Your task to perform on an android device: Search for flights from Barcelona to Mexico city Image 0: 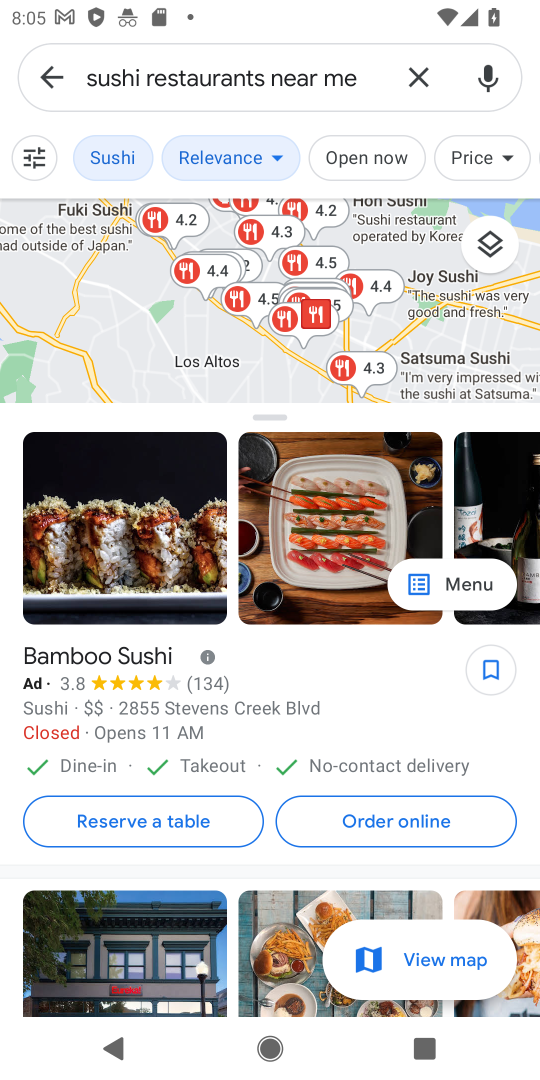
Step 0: click (38, 62)
Your task to perform on an android device: Search for flights from Barcelona to Mexico city Image 1: 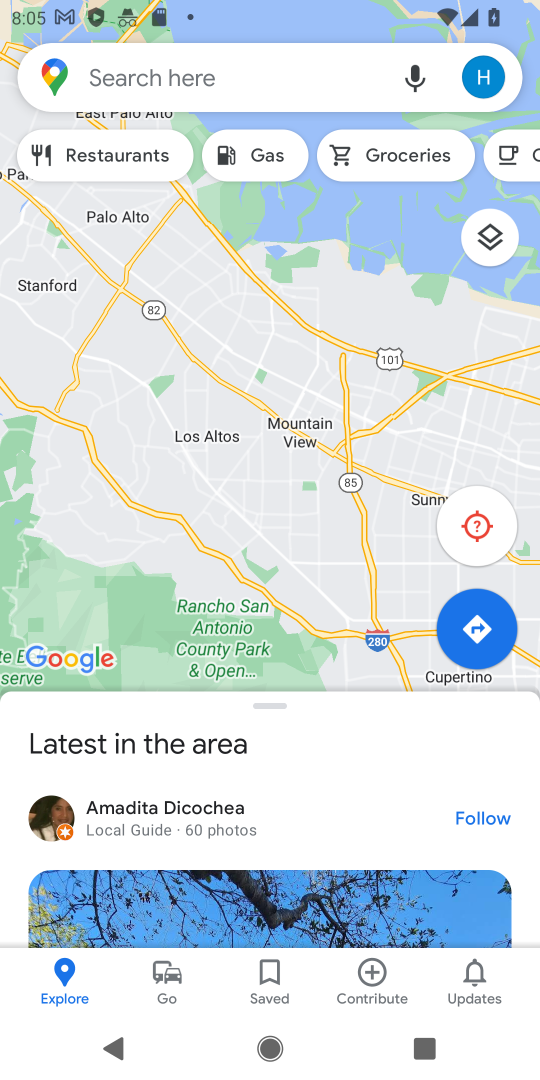
Step 1: click (212, 74)
Your task to perform on an android device: Search for flights from Barcelona to Mexico city Image 2: 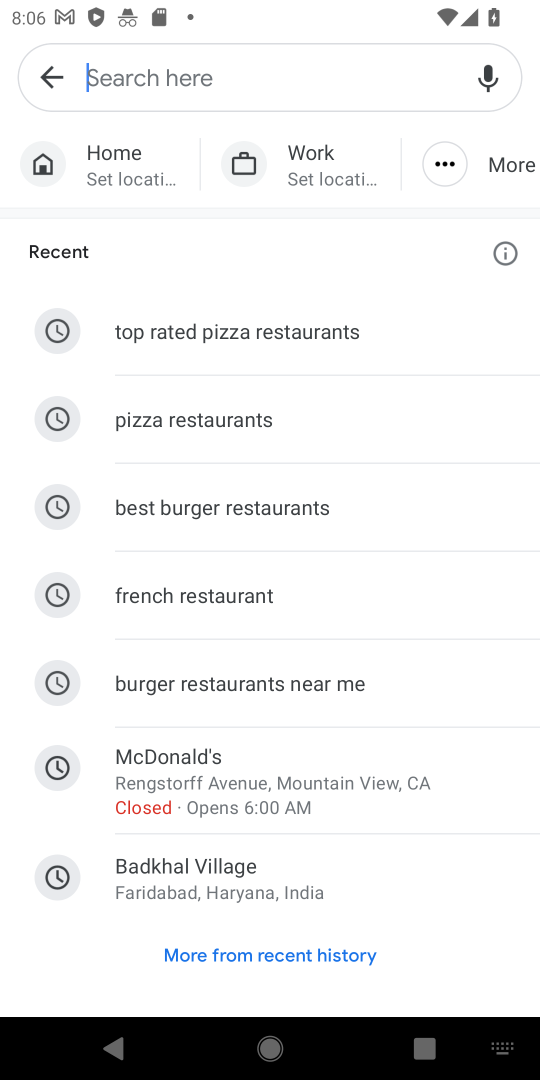
Step 2: type "Search for flights from Barcelona to Mexico city"
Your task to perform on an android device: Search for flights from Barcelona to Mexico city Image 3: 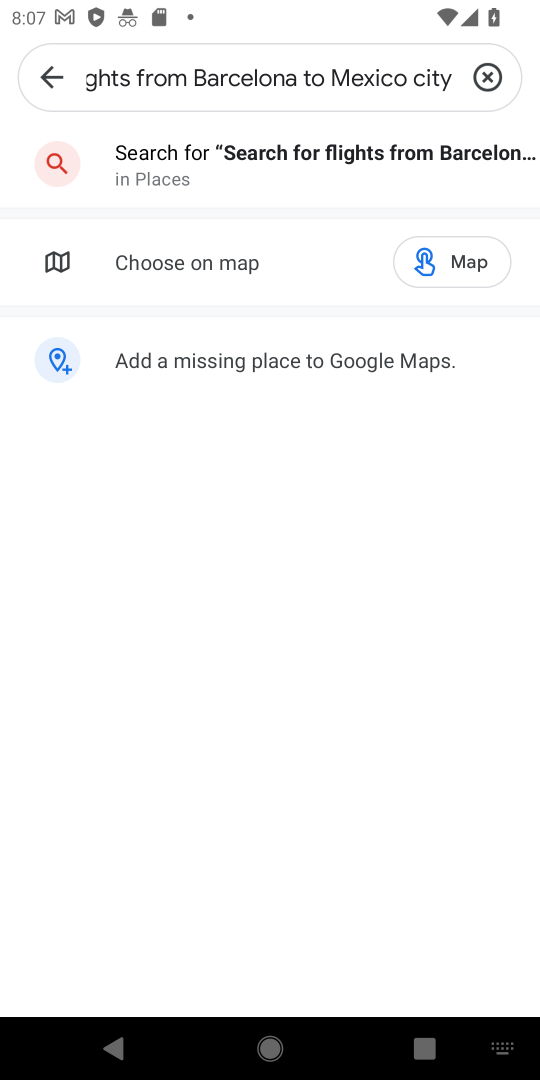
Step 3: click (277, 163)
Your task to perform on an android device: Search for flights from Barcelona to Mexico city Image 4: 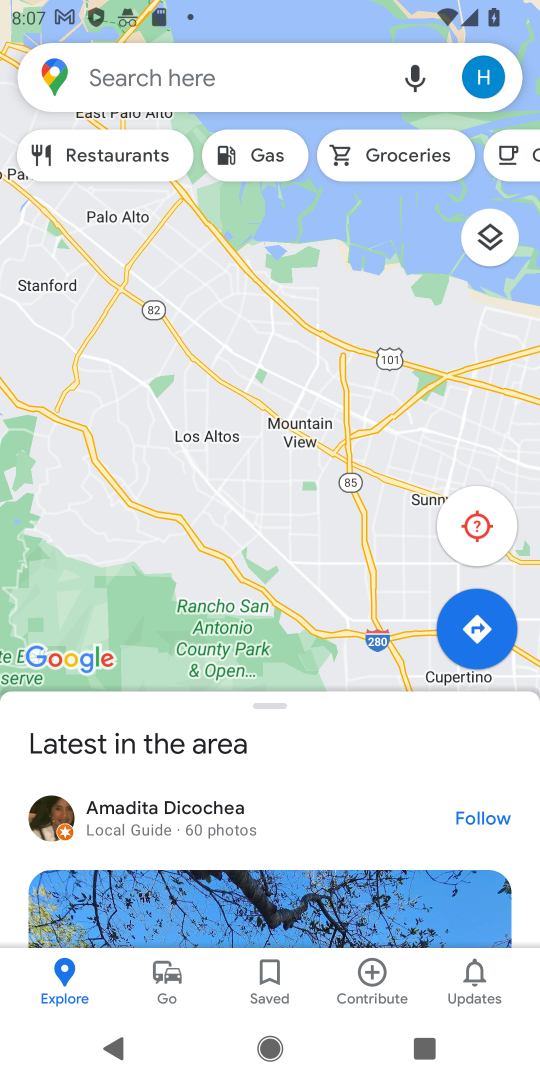
Step 4: task complete